Your task to perform on an android device: Search for Mexican restaurants on Maps Image 0: 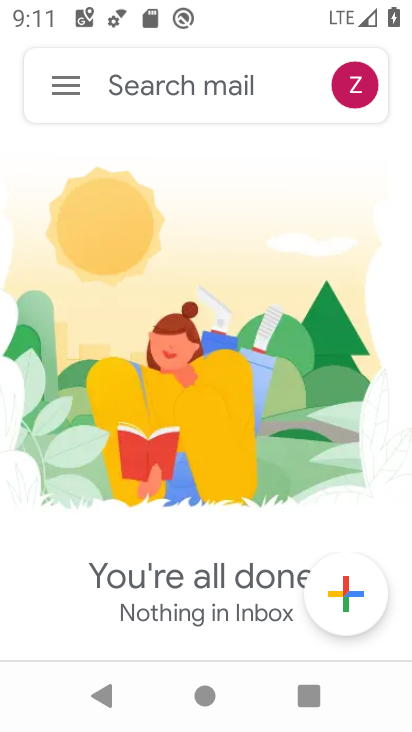
Step 0: press home button
Your task to perform on an android device: Search for Mexican restaurants on Maps Image 1: 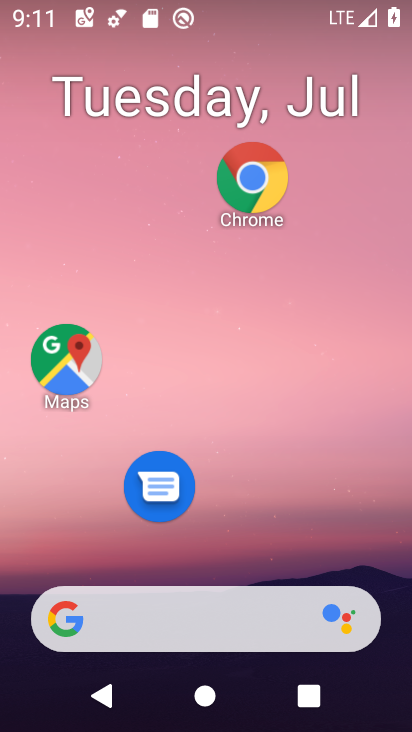
Step 1: drag from (175, 434) to (184, 6)
Your task to perform on an android device: Search for Mexican restaurants on Maps Image 2: 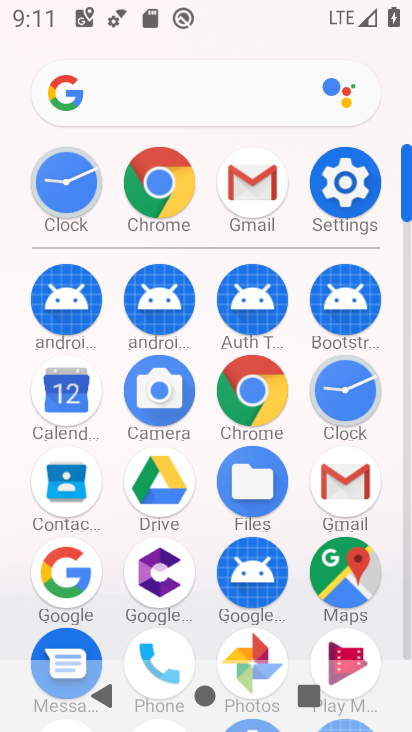
Step 2: click (329, 586)
Your task to perform on an android device: Search for Mexican restaurants on Maps Image 3: 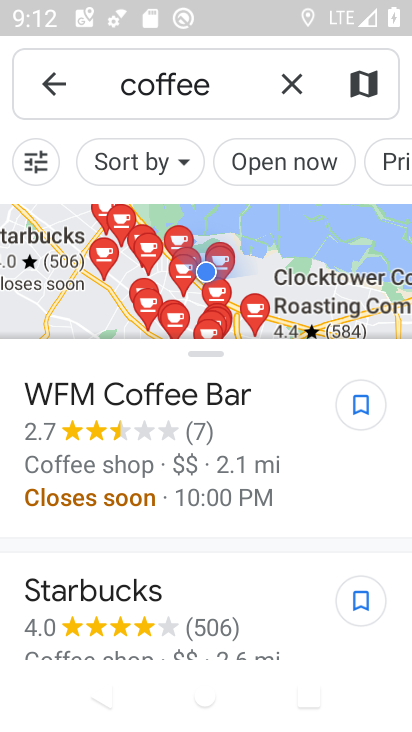
Step 3: click (291, 88)
Your task to perform on an android device: Search for Mexican restaurants on Maps Image 4: 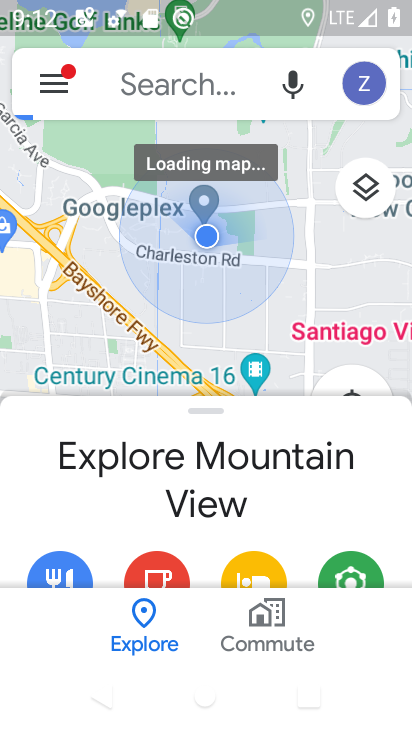
Step 4: click (176, 95)
Your task to perform on an android device: Search for Mexican restaurants on Maps Image 5: 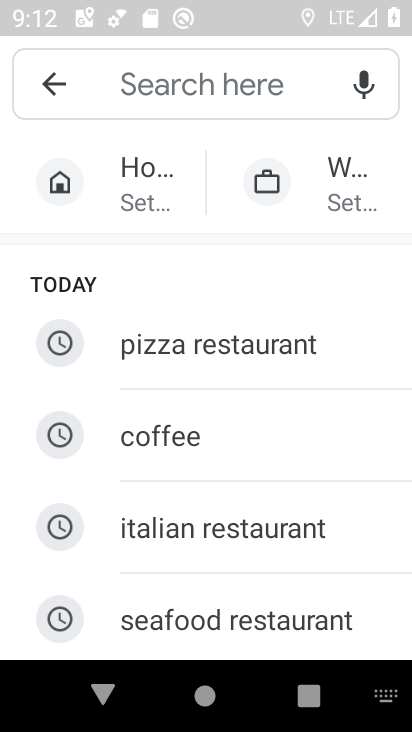
Step 5: drag from (269, 501) to (273, 163)
Your task to perform on an android device: Search for Mexican restaurants on Maps Image 6: 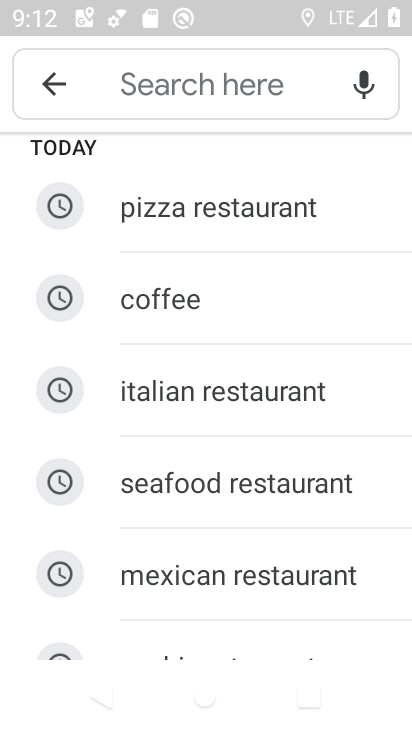
Step 6: click (248, 566)
Your task to perform on an android device: Search for Mexican restaurants on Maps Image 7: 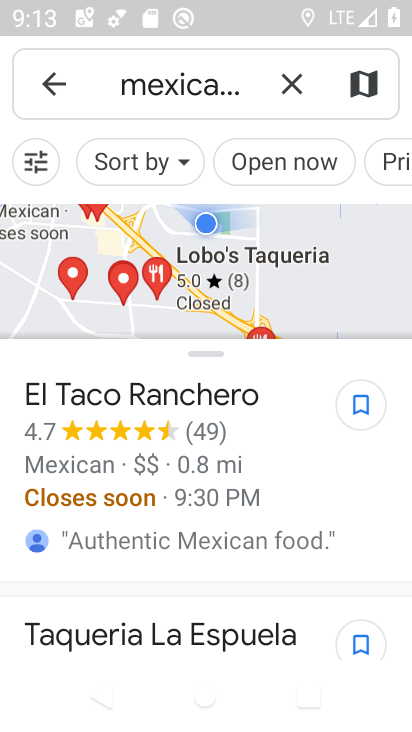
Step 7: task complete